Your task to perform on an android device: Clear all items from cart on bestbuy.com. Image 0: 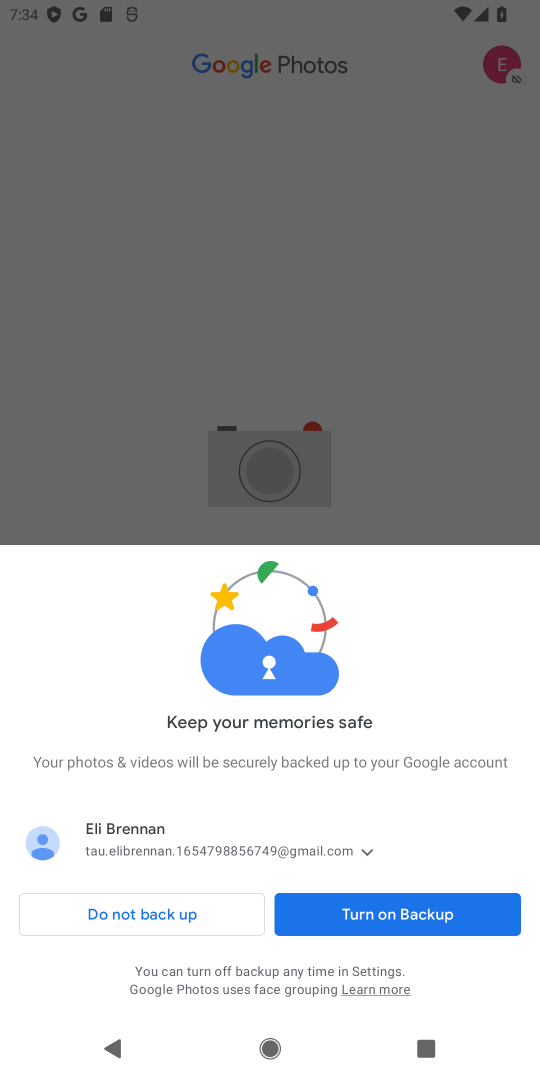
Step 0: press home button
Your task to perform on an android device: Clear all items from cart on bestbuy.com. Image 1: 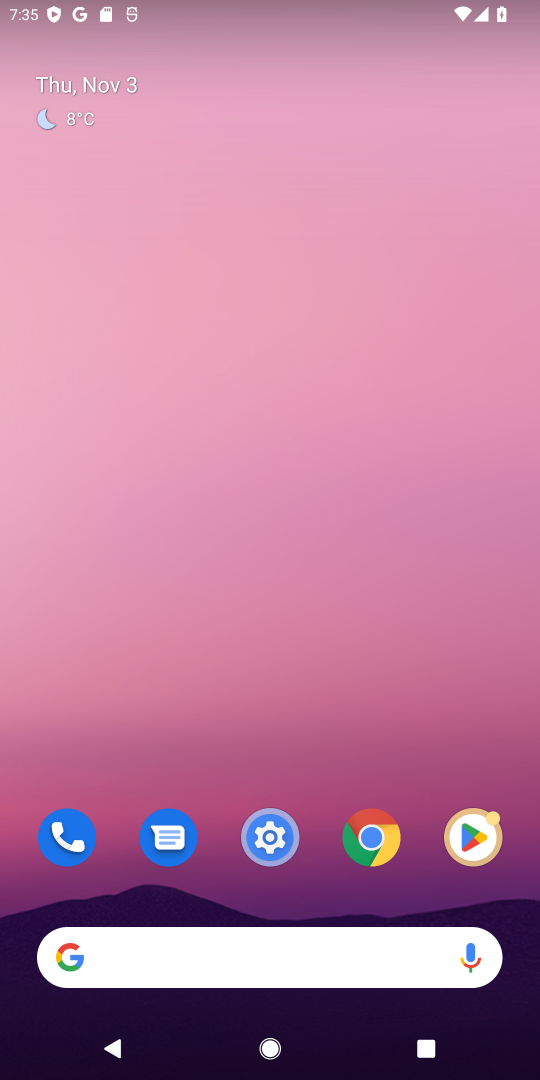
Step 1: click (375, 836)
Your task to perform on an android device: Clear all items from cart on bestbuy.com. Image 2: 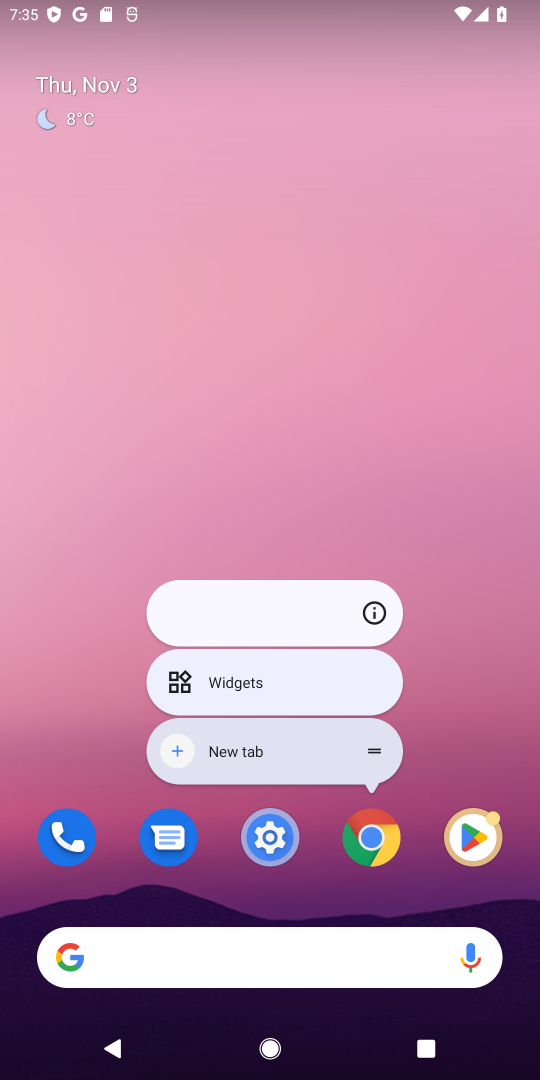
Step 2: click (420, 833)
Your task to perform on an android device: Clear all items from cart on bestbuy.com. Image 3: 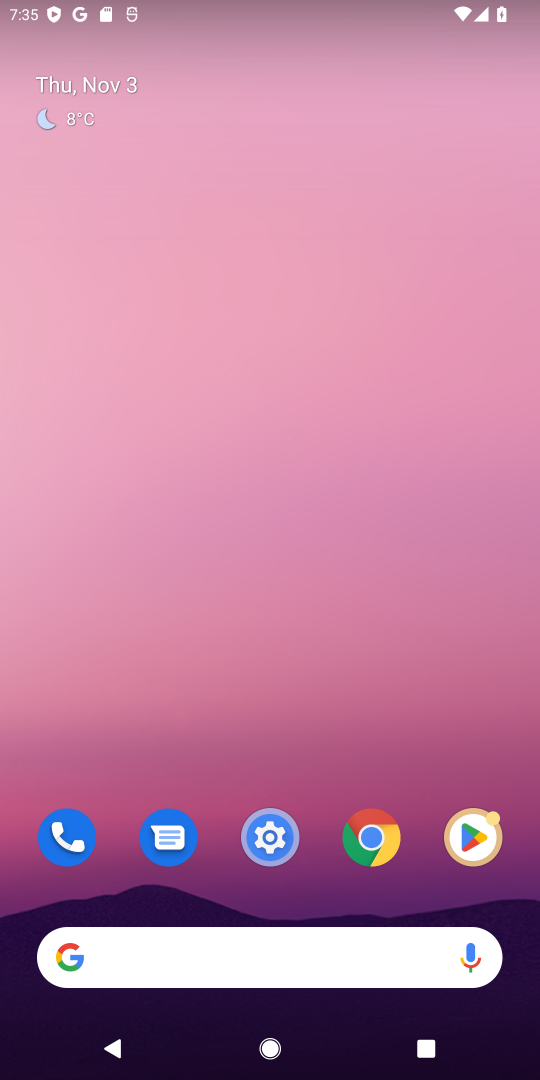
Step 3: click (382, 830)
Your task to perform on an android device: Clear all items from cart on bestbuy.com. Image 4: 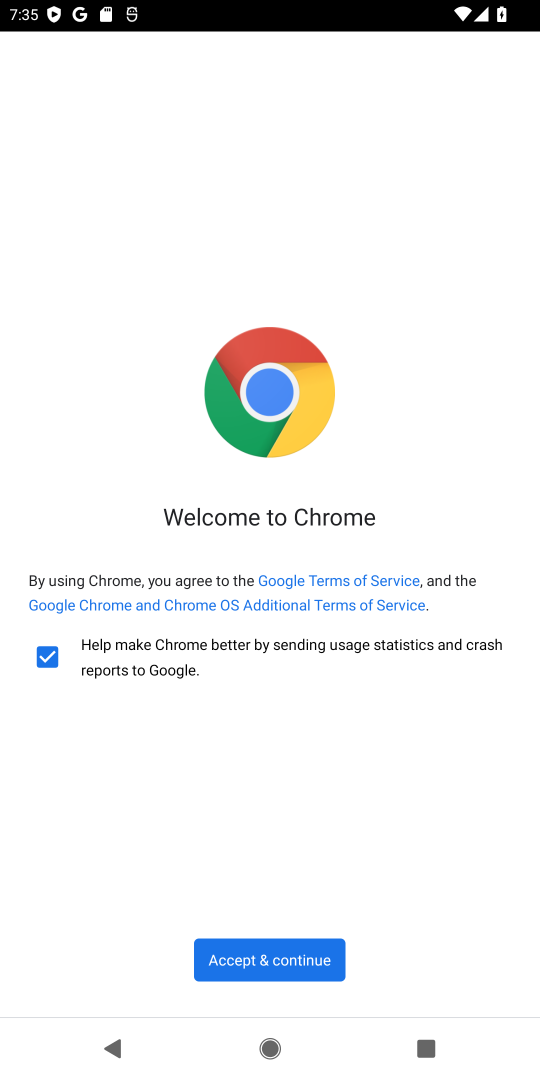
Step 4: click (287, 966)
Your task to perform on an android device: Clear all items from cart on bestbuy.com. Image 5: 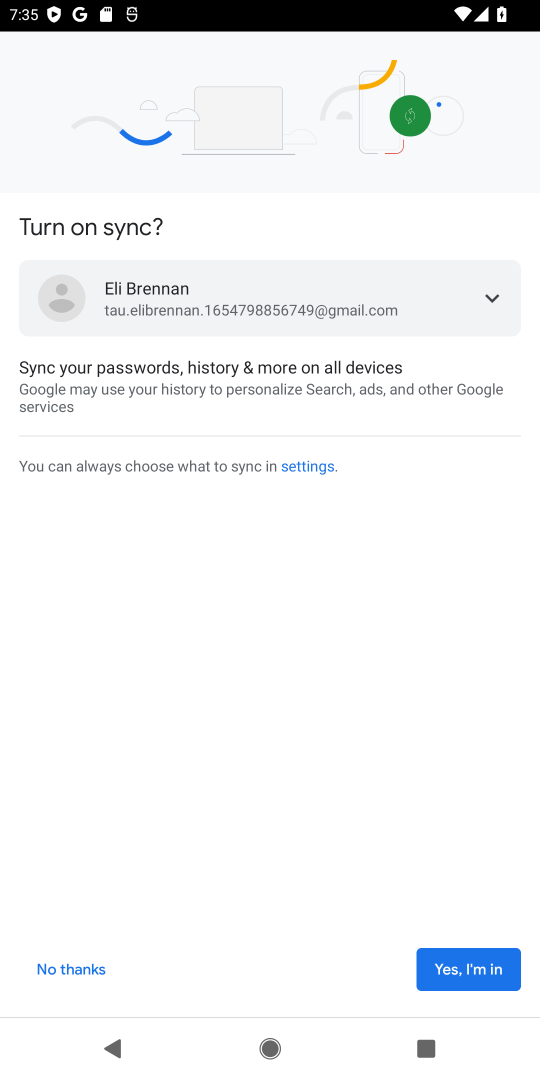
Step 5: click (460, 976)
Your task to perform on an android device: Clear all items from cart on bestbuy.com. Image 6: 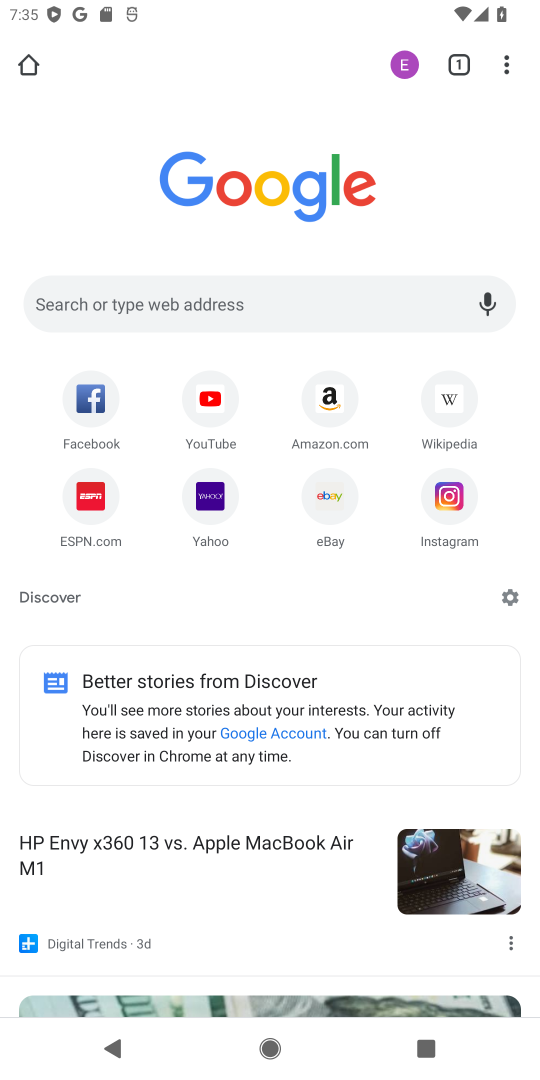
Step 6: click (228, 307)
Your task to perform on an android device: Clear all items from cart on bestbuy.com. Image 7: 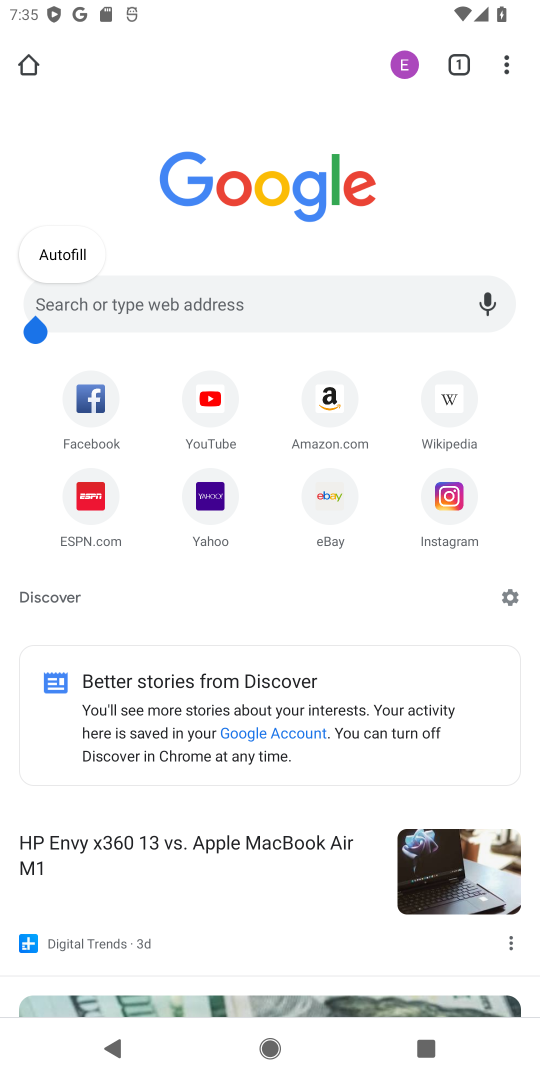
Step 7: click (164, 301)
Your task to perform on an android device: Clear all items from cart on bestbuy.com. Image 8: 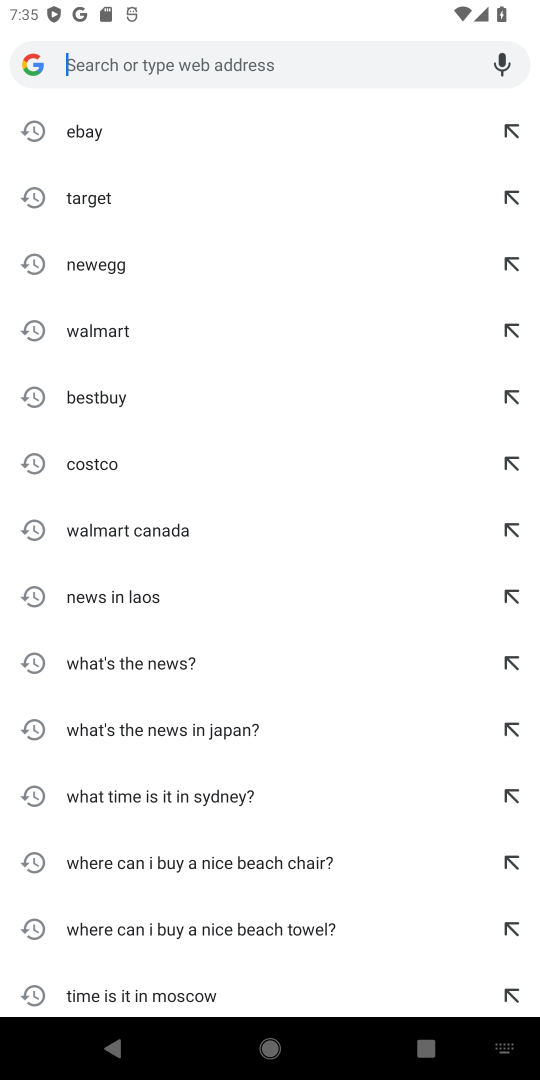
Step 8: click (89, 396)
Your task to perform on an android device: Clear all items from cart on bestbuy.com. Image 9: 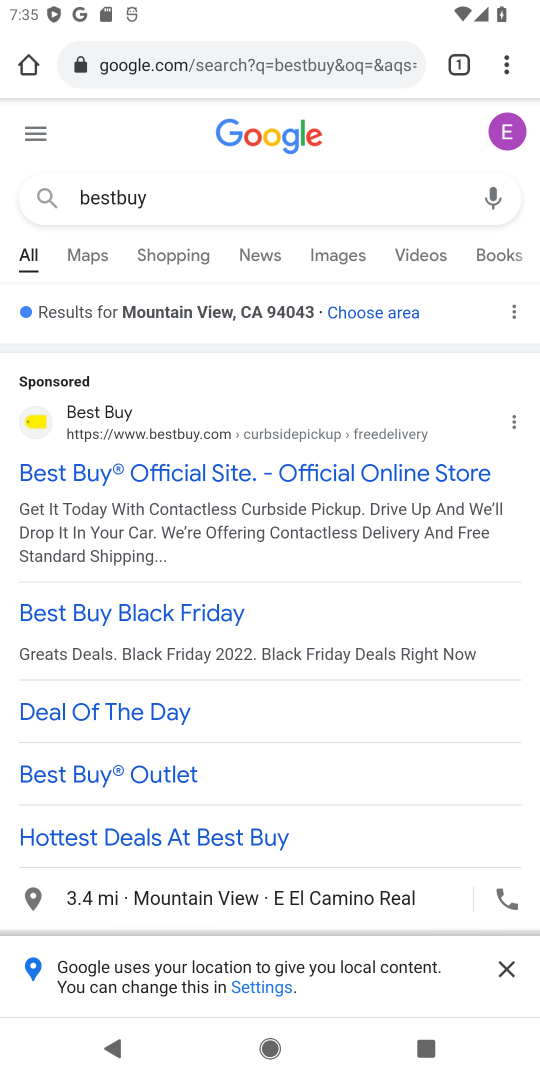
Step 9: click (242, 473)
Your task to perform on an android device: Clear all items from cart on bestbuy.com. Image 10: 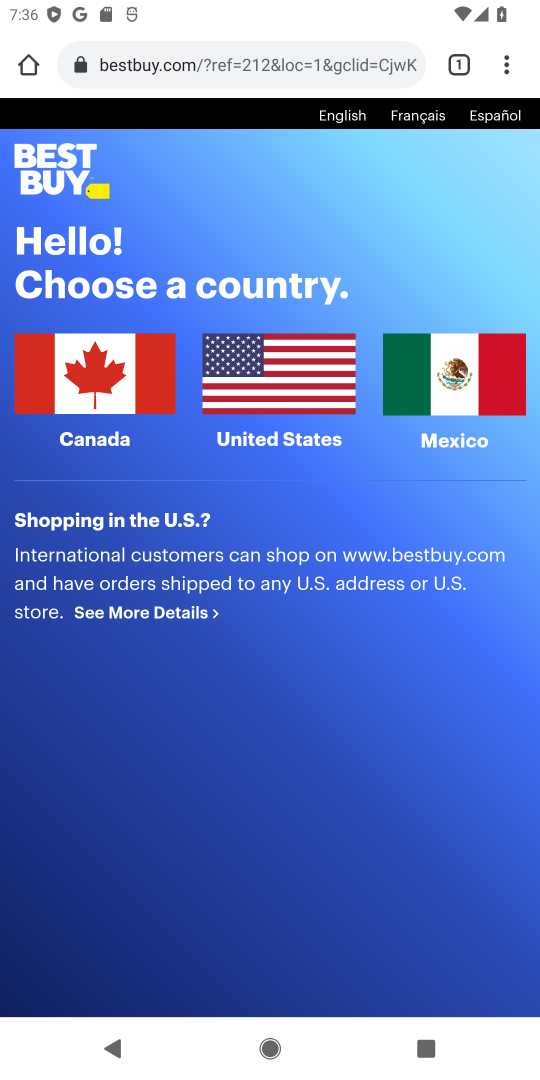
Step 10: click (90, 426)
Your task to perform on an android device: Clear all items from cart on bestbuy.com. Image 11: 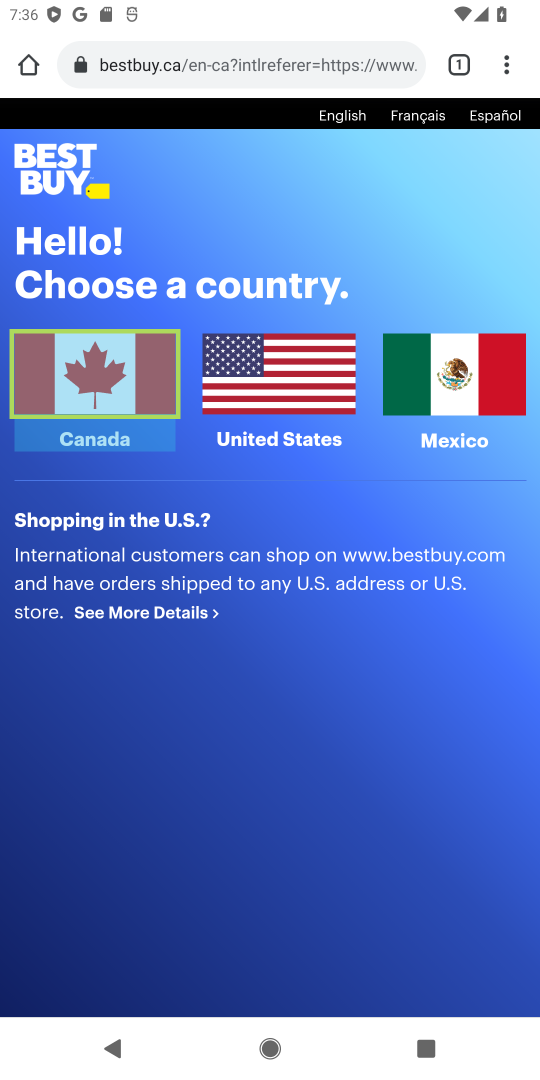
Step 11: click (89, 398)
Your task to perform on an android device: Clear all items from cart on bestbuy.com. Image 12: 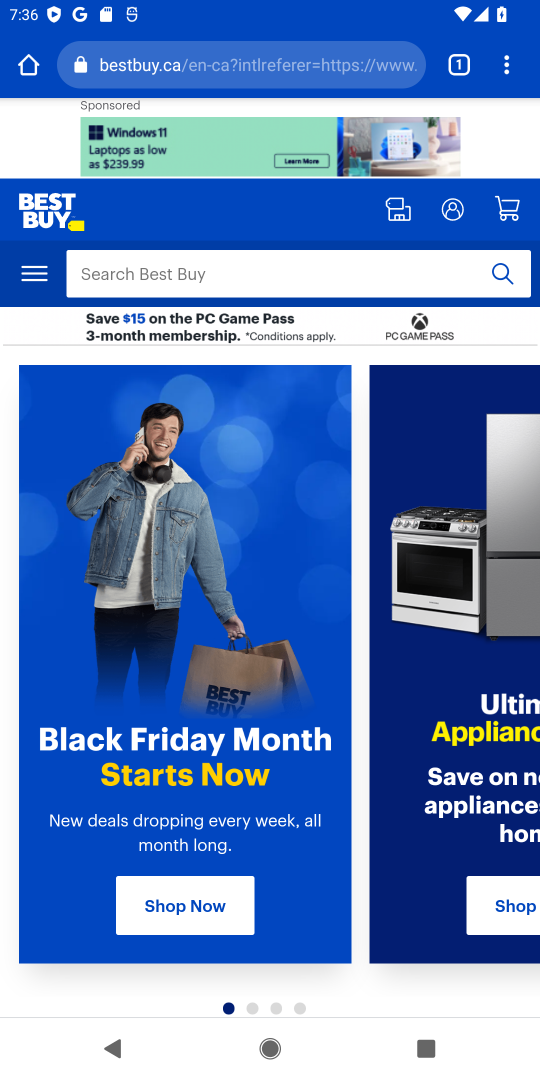
Step 12: click (510, 216)
Your task to perform on an android device: Clear all items from cart on bestbuy.com. Image 13: 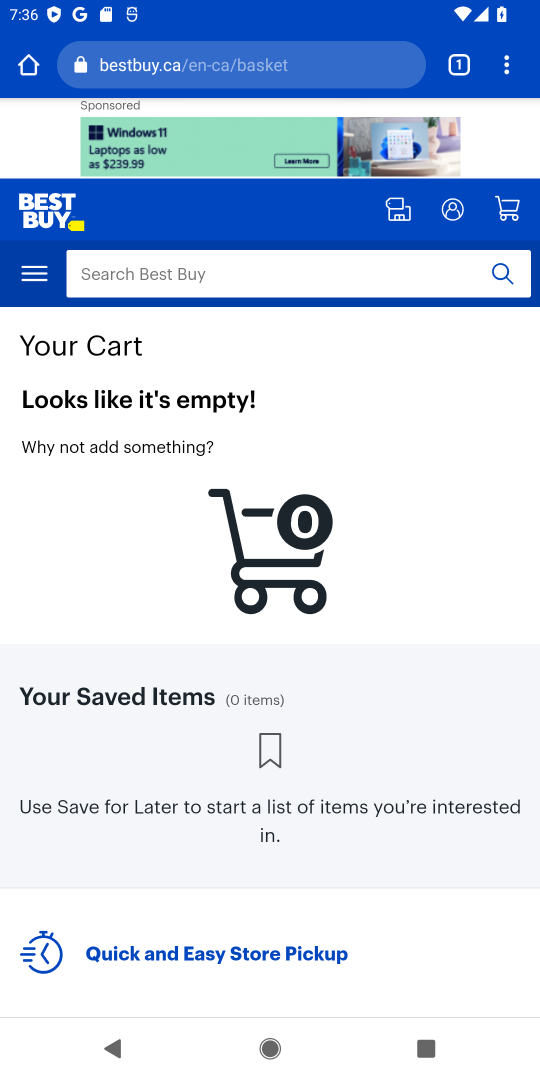
Step 13: task complete